Your task to perform on an android device: change notifications settings Image 0: 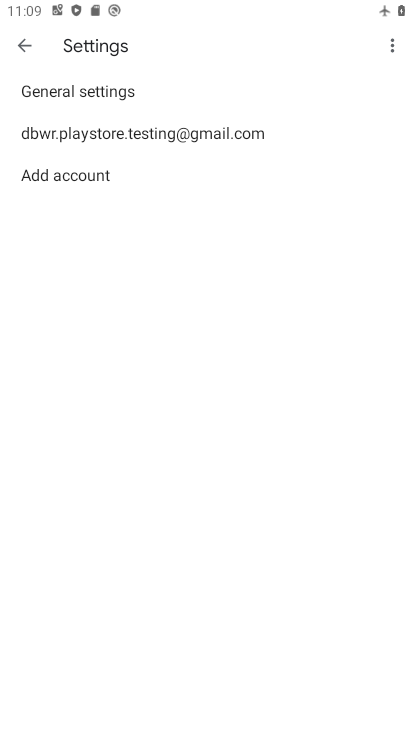
Step 0: press home button
Your task to perform on an android device: change notifications settings Image 1: 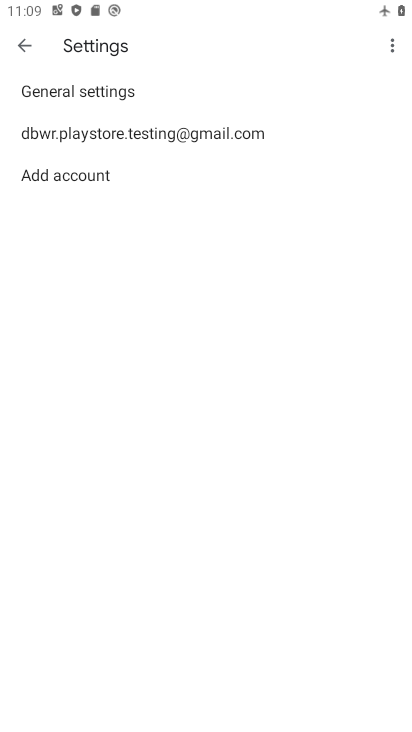
Step 1: press home button
Your task to perform on an android device: change notifications settings Image 2: 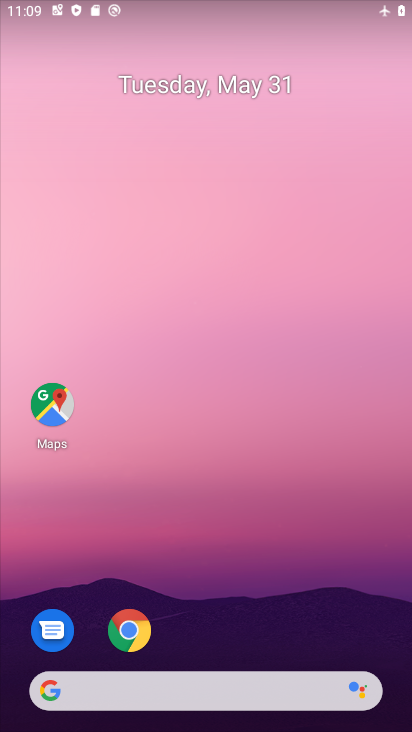
Step 2: drag from (223, 639) to (218, 191)
Your task to perform on an android device: change notifications settings Image 3: 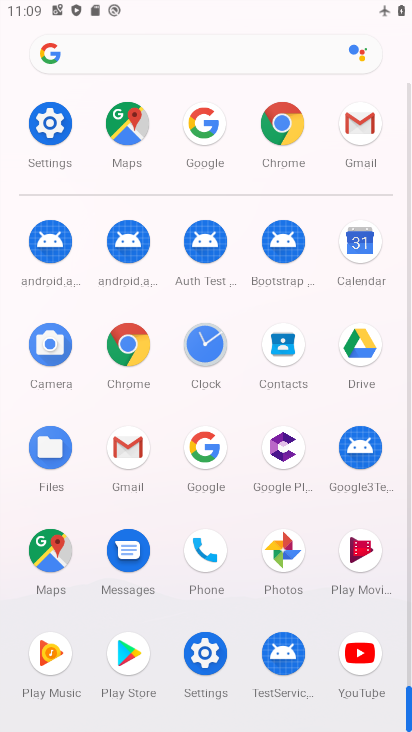
Step 3: click (55, 149)
Your task to perform on an android device: change notifications settings Image 4: 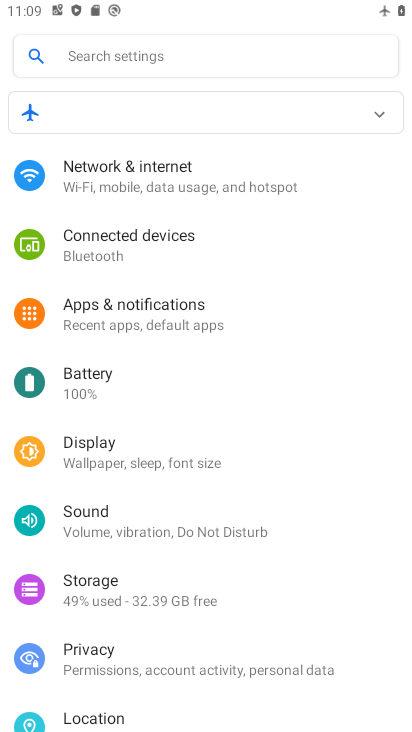
Step 4: click (172, 317)
Your task to perform on an android device: change notifications settings Image 5: 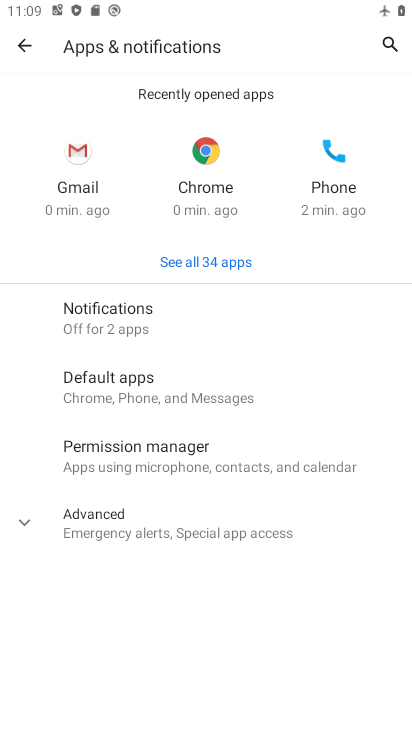
Step 5: click (165, 322)
Your task to perform on an android device: change notifications settings Image 6: 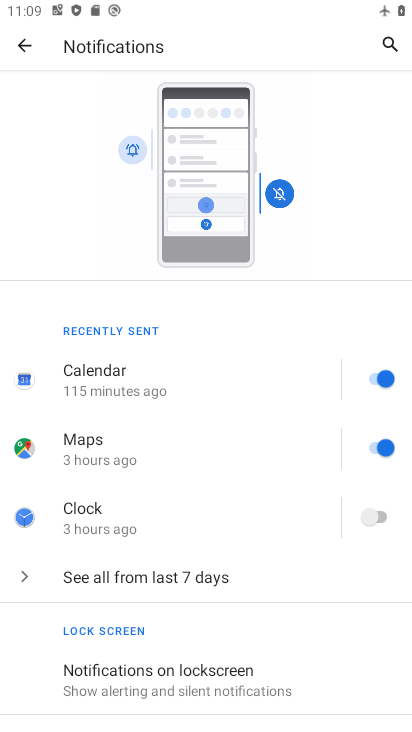
Step 6: drag from (205, 565) to (197, 373)
Your task to perform on an android device: change notifications settings Image 7: 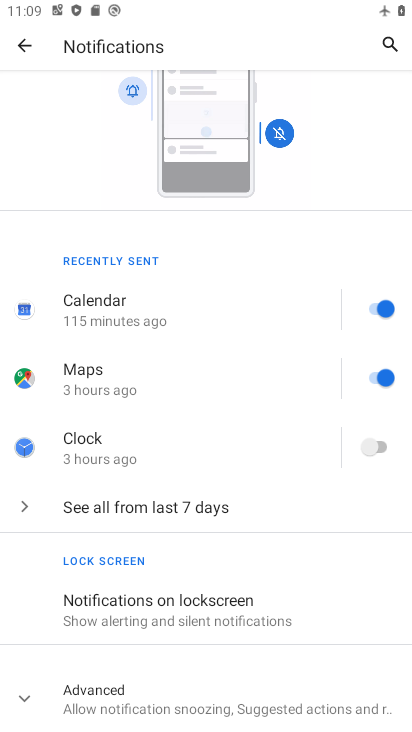
Step 7: click (221, 614)
Your task to perform on an android device: change notifications settings Image 8: 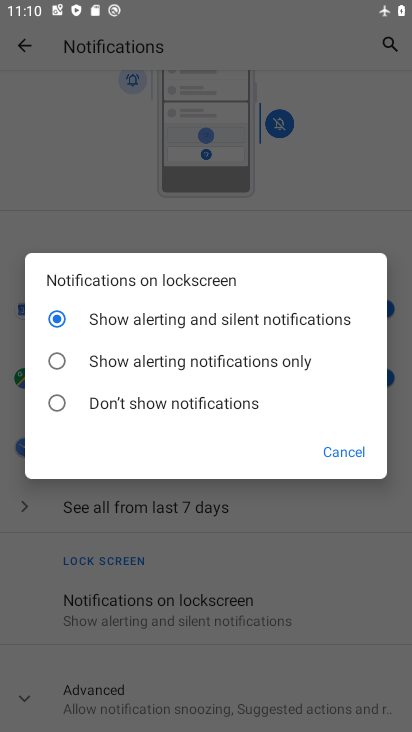
Step 8: click (255, 363)
Your task to perform on an android device: change notifications settings Image 9: 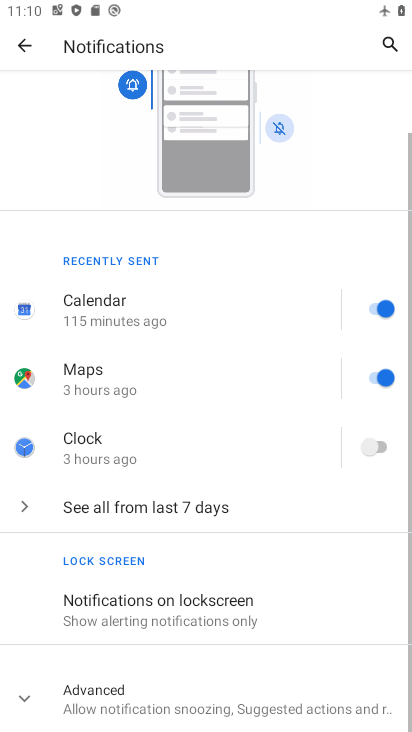
Step 9: task complete